Your task to perform on an android device: toggle wifi Image 0: 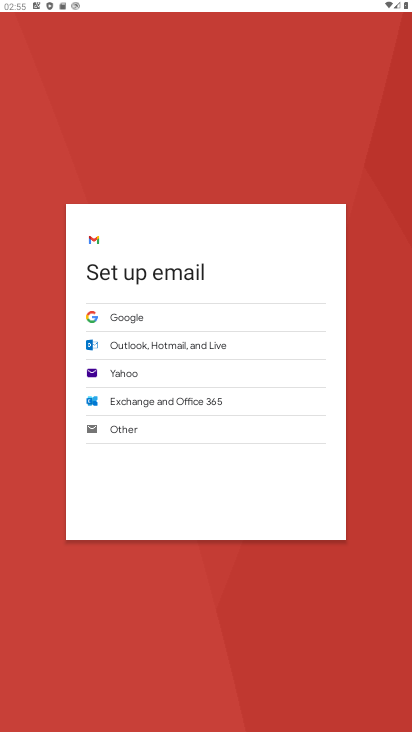
Step 0: press home button
Your task to perform on an android device: toggle wifi Image 1: 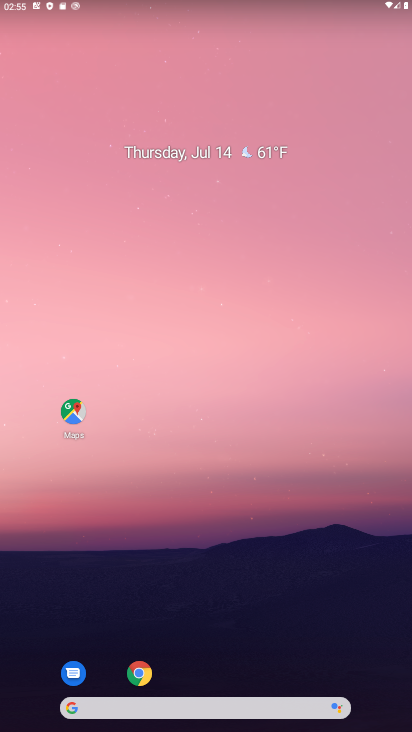
Step 1: drag from (300, 666) to (291, 254)
Your task to perform on an android device: toggle wifi Image 2: 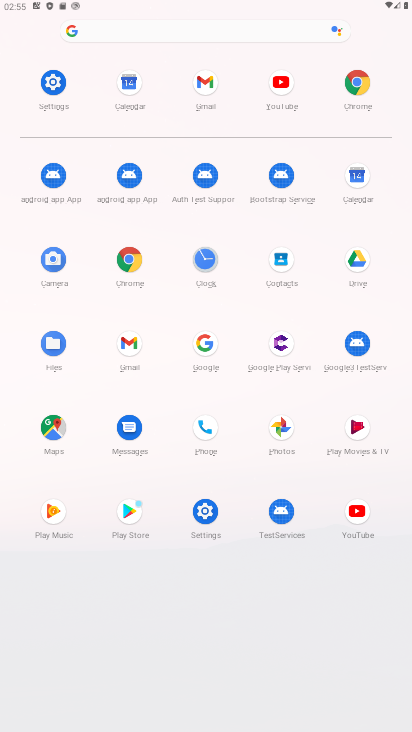
Step 2: click (47, 95)
Your task to perform on an android device: toggle wifi Image 3: 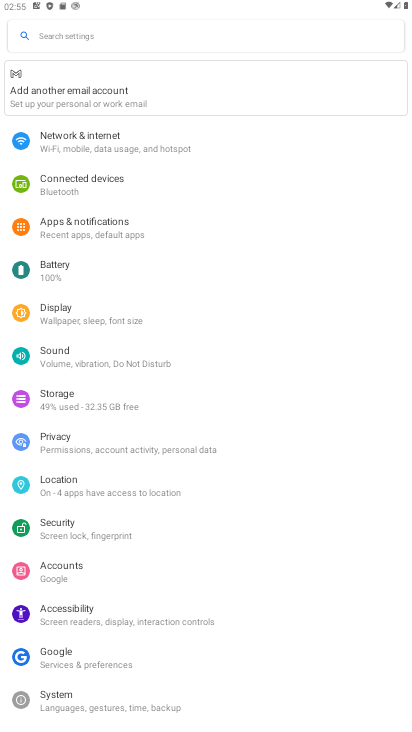
Step 3: click (160, 161)
Your task to perform on an android device: toggle wifi Image 4: 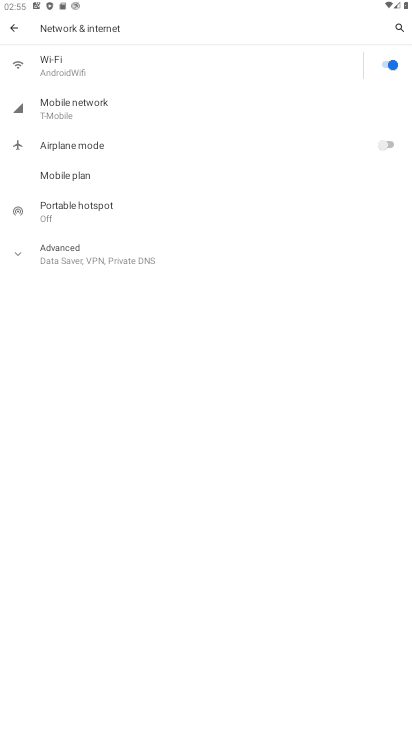
Step 4: click (388, 59)
Your task to perform on an android device: toggle wifi Image 5: 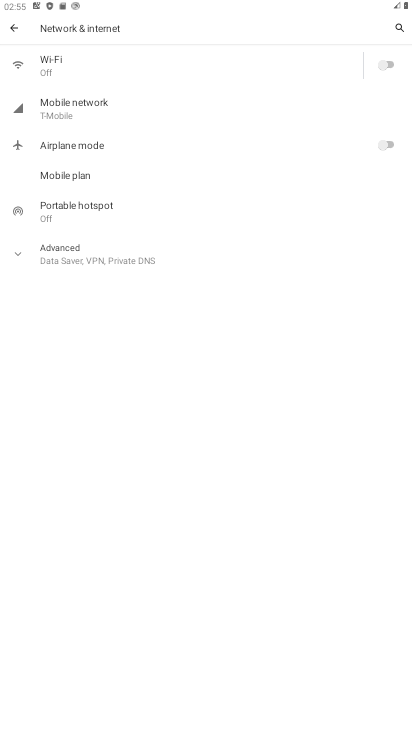
Step 5: task complete